Your task to perform on an android device: Find coffee shops on Maps Image 0: 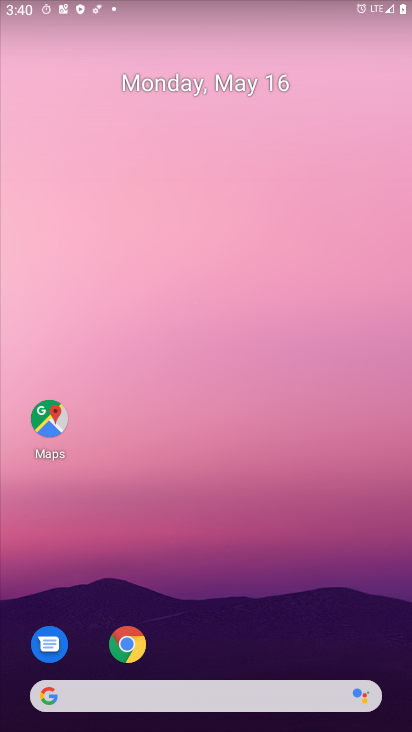
Step 0: drag from (193, 664) to (245, 59)
Your task to perform on an android device: Find coffee shops on Maps Image 1: 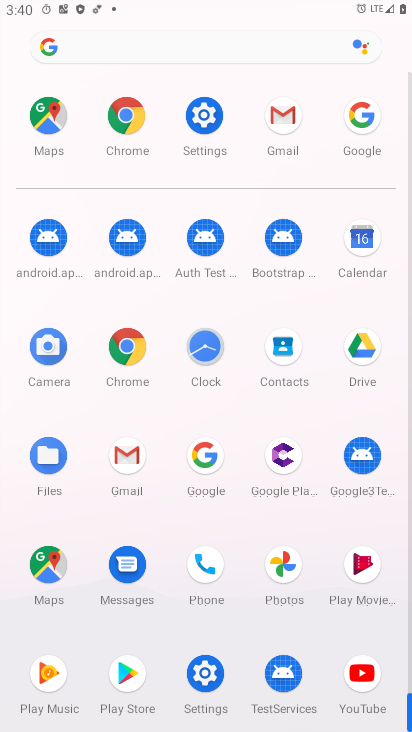
Step 1: drag from (220, 538) to (239, 319)
Your task to perform on an android device: Find coffee shops on Maps Image 2: 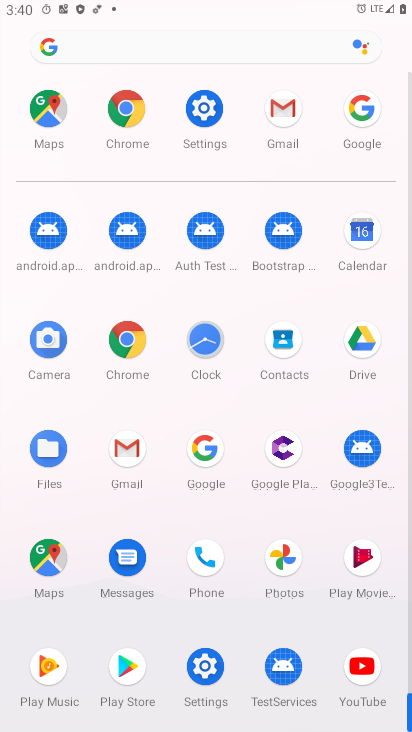
Step 2: click (55, 576)
Your task to perform on an android device: Find coffee shops on Maps Image 3: 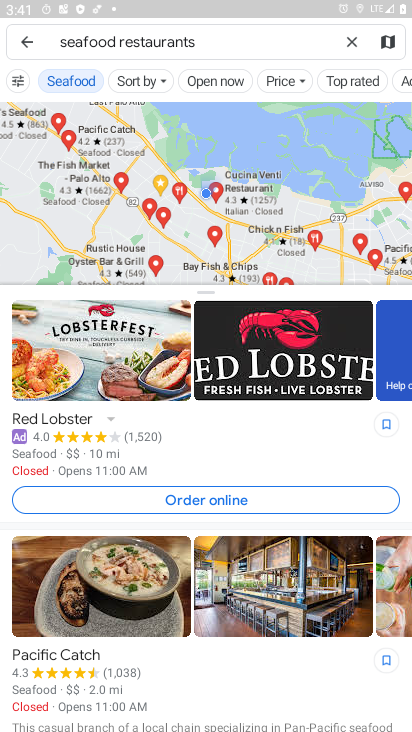
Step 3: click (345, 41)
Your task to perform on an android device: Find coffee shops on Maps Image 4: 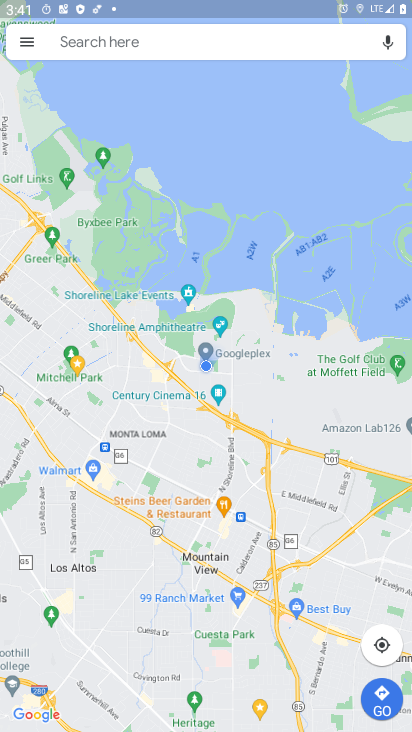
Step 4: click (279, 38)
Your task to perform on an android device: Find coffee shops on Maps Image 5: 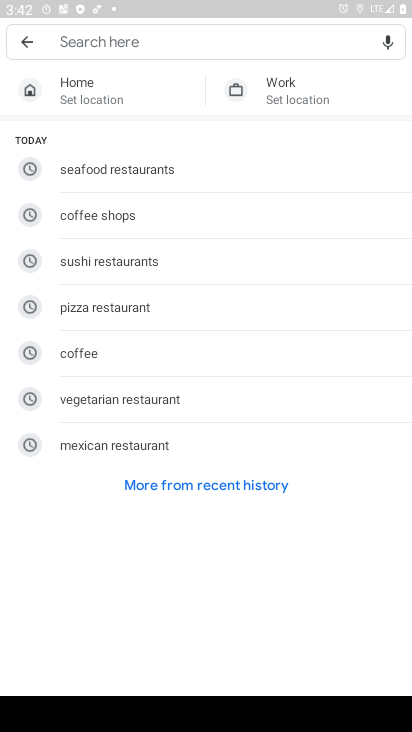
Step 5: click (111, 220)
Your task to perform on an android device: Find coffee shops on Maps Image 6: 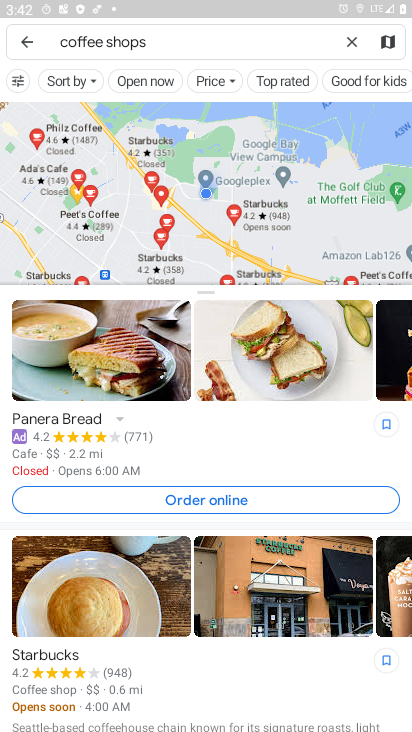
Step 6: task complete